Your task to perform on an android device: toggle javascript in the chrome app Image 0: 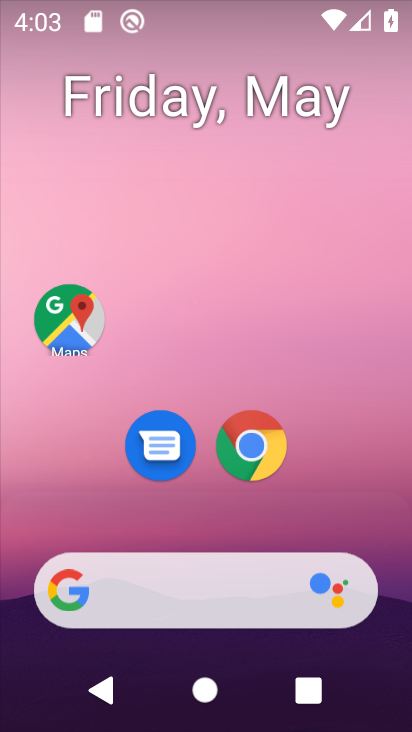
Step 0: click (253, 451)
Your task to perform on an android device: toggle javascript in the chrome app Image 1: 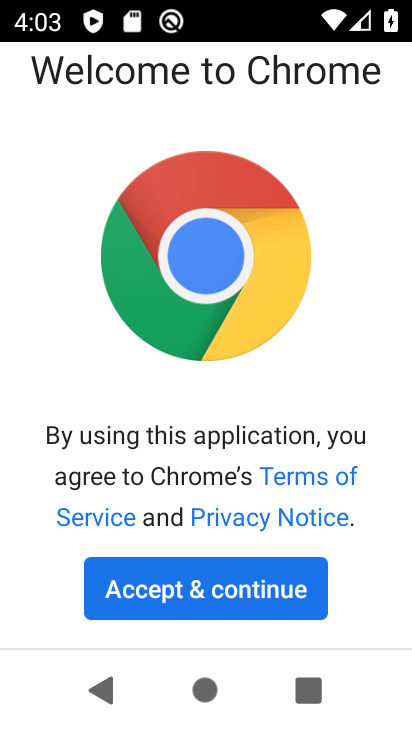
Step 1: click (168, 575)
Your task to perform on an android device: toggle javascript in the chrome app Image 2: 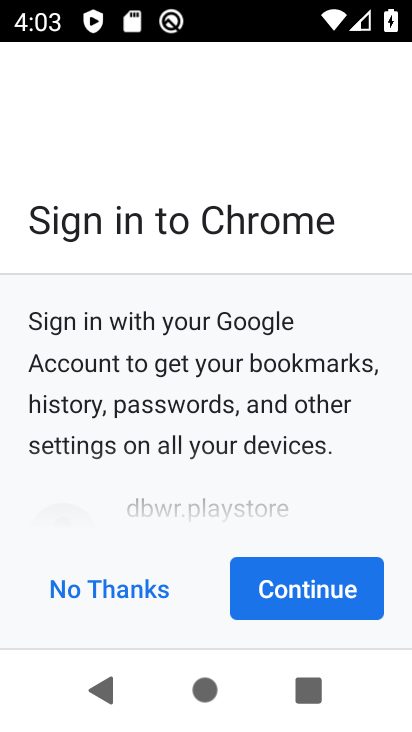
Step 2: click (276, 582)
Your task to perform on an android device: toggle javascript in the chrome app Image 3: 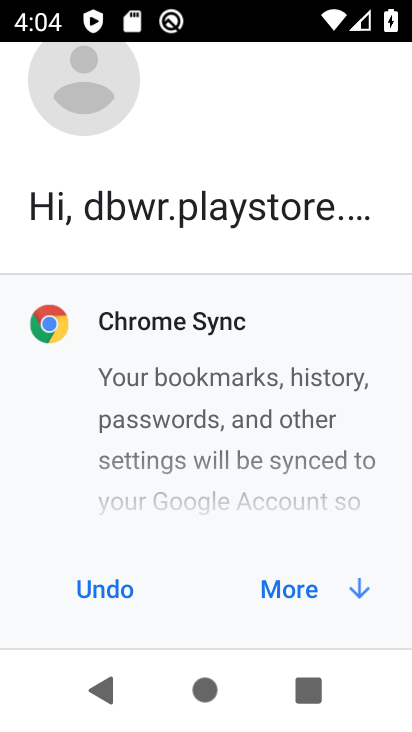
Step 3: click (276, 582)
Your task to perform on an android device: toggle javascript in the chrome app Image 4: 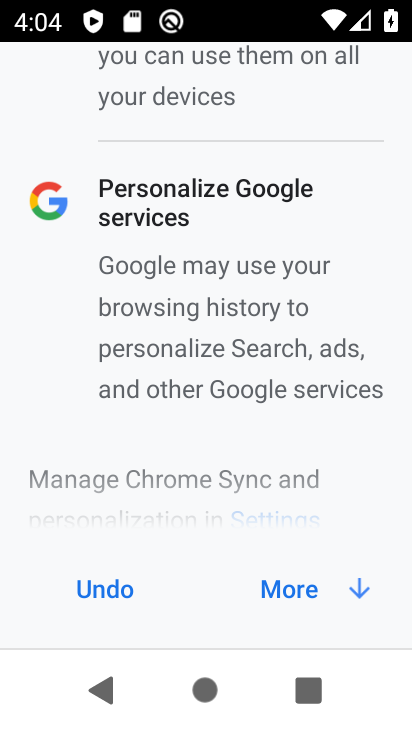
Step 4: click (276, 582)
Your task to perform on an android device: toggle javascript in the chrome app Image 5: 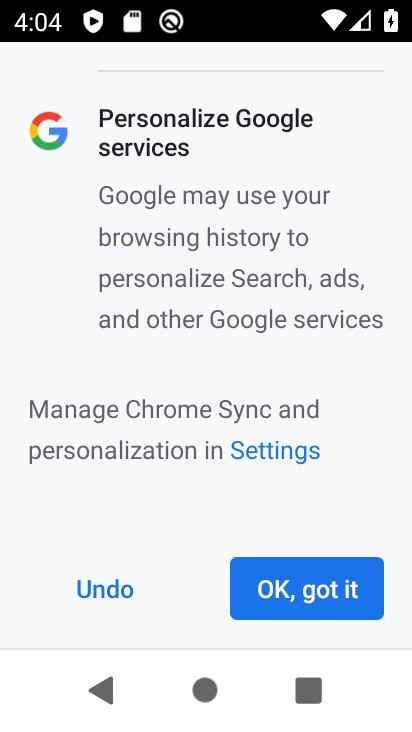
Step 5: click (276, 582)
Your task to perform on an android device: toggle javascript in the chrome app Image 6: 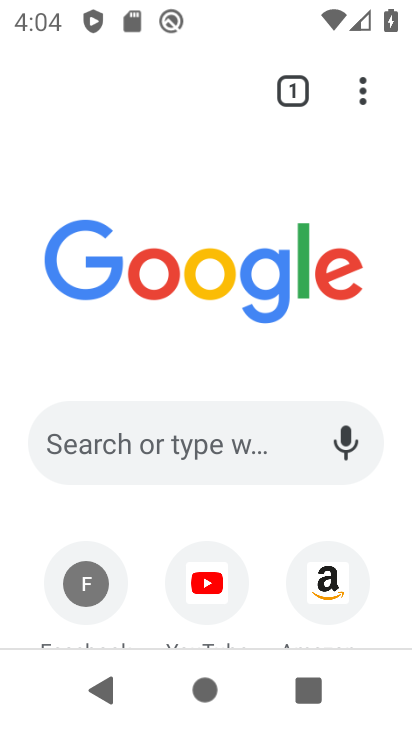
Step 6: click (366, 94)
Your task to perform on an android device: toggle javascript in the chrome app Image 7: 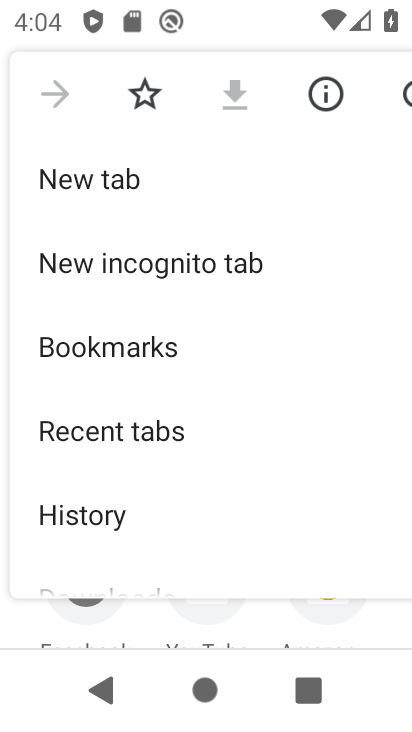
Step 7: drag from (169, 509) to (156, 160)
Your task to perform on an android device: toggle javascript in the chrome app Image 8: 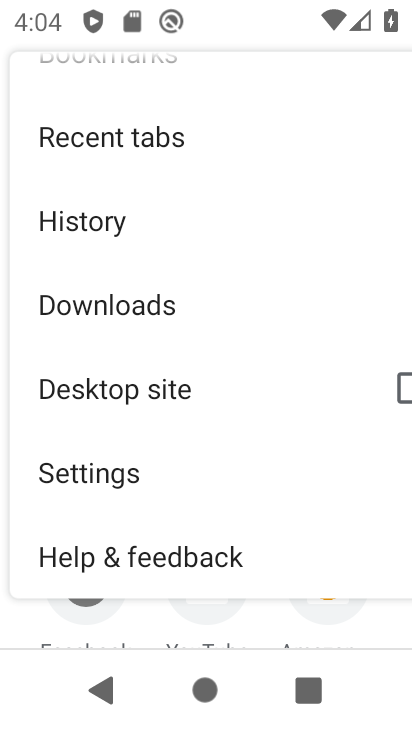
Step 8: click (119, 476)
Your task to perform on an android device: toggle javascript in the chrome app Image 9: 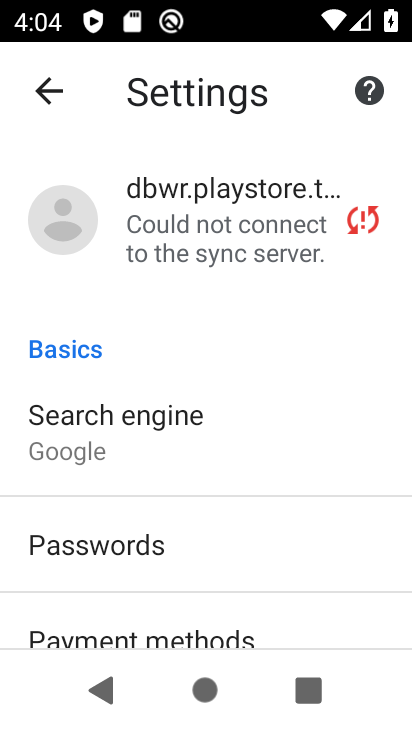
Step 9: drag from (142, 571) to (122, 235)
Your task to perform on an android device: toggle javascript in the chrome app Image 10: 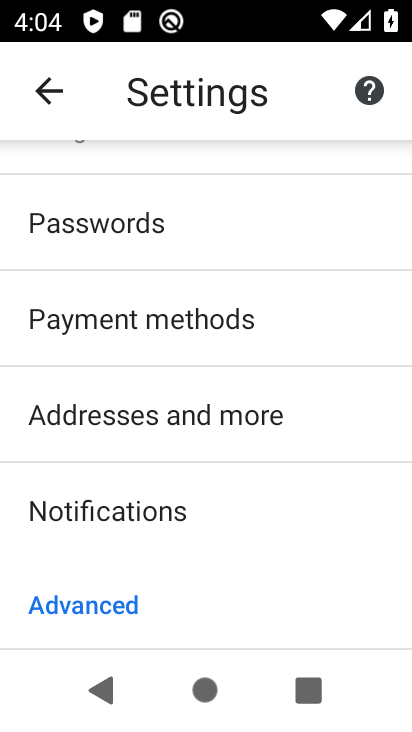
Step 10: drag from (206, 549) to (190, 246)
Your task to perform on an android device: toggle javascript in the chrome app Image 11: 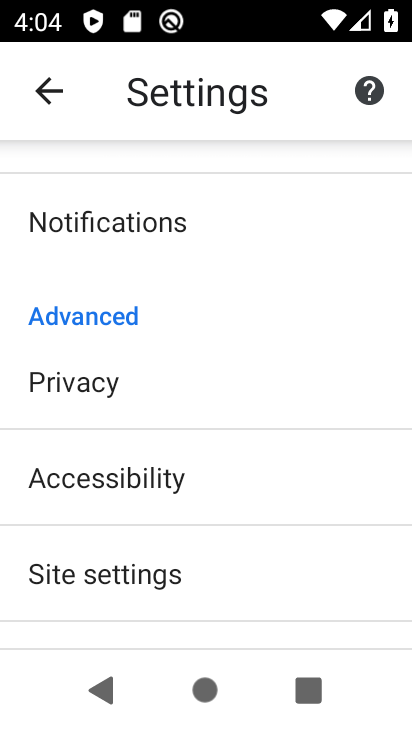
Step 11: drag from (133, 585) to (124, 390)
Your task to perform on an android device: toggle javascript in the chrome app Image 12: 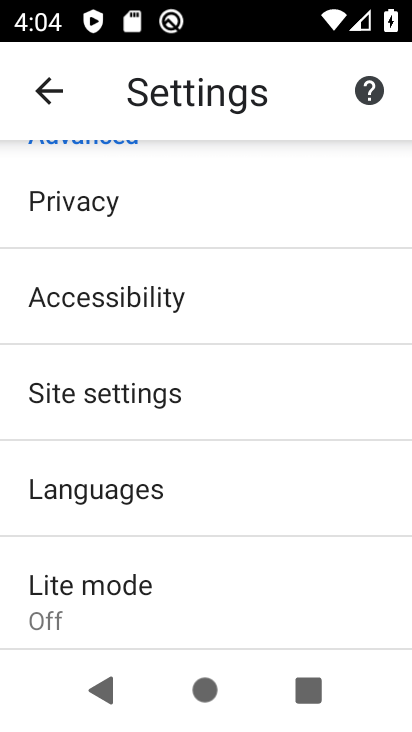
Step 12: click (89, 397)
Your task to perform on an android device: toggle javascript in the chrome app Image 13: 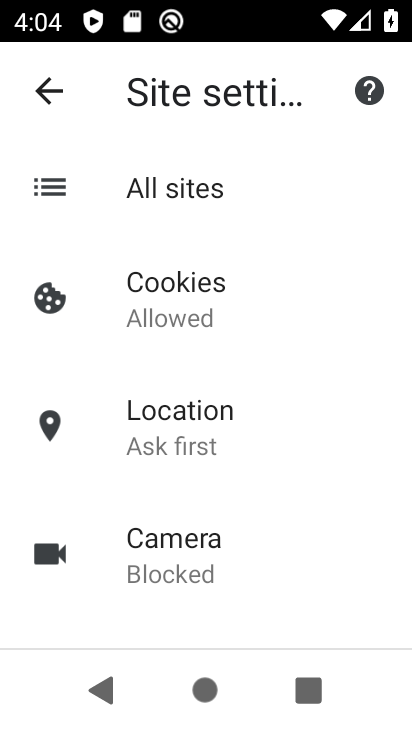
Step 13: drag from (194, 536) to (182, 226)
Your task to perform on an android device: toggle javascript in the chrome app Image 14: 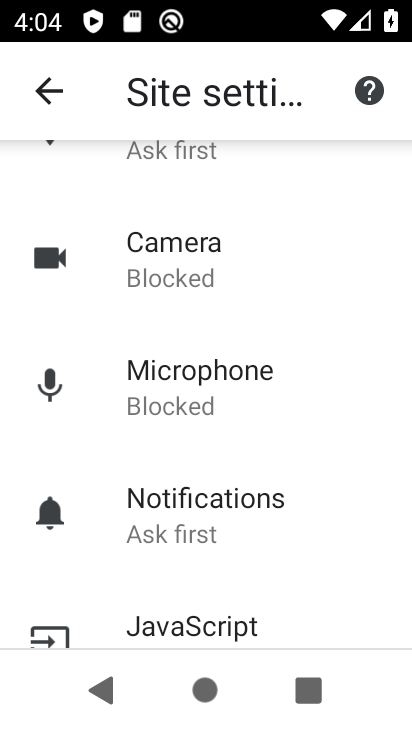
Step 14: click (188, 635)
Your task to perform on an android device: toggle javascript in the chrome app Image 15: 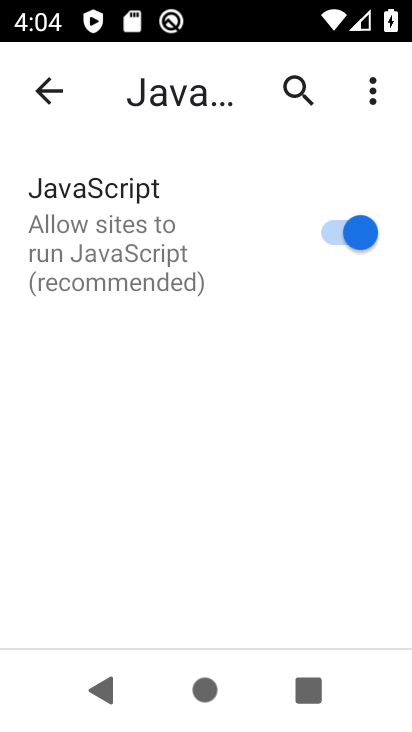
Step 15: click (340, 229)
Your task to perform on an android device: toggle javascript in the chrome app Image 16: 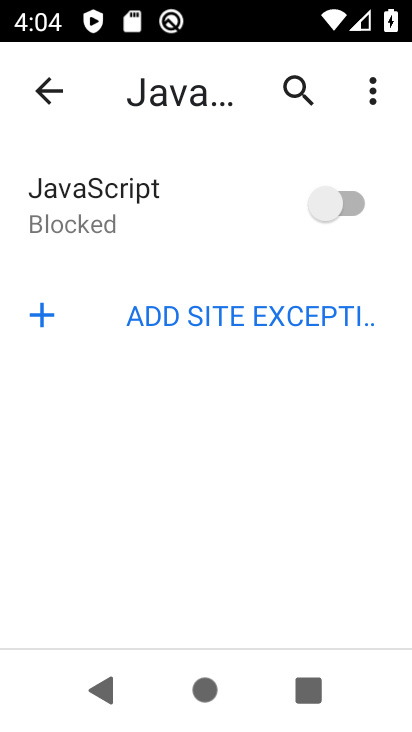
Step 16: task complete